Your task to perform on an android device: Open sound settings Image 0: 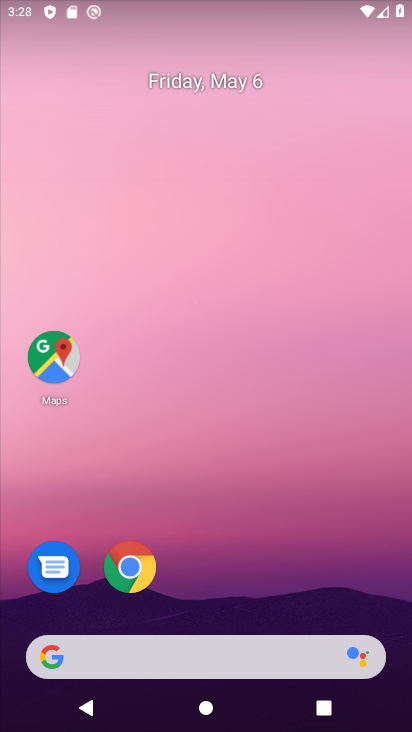
Step 0: drag from (194, 587) to (227, 171)
Your task to perform on an android device: Open sound settings Image 1: 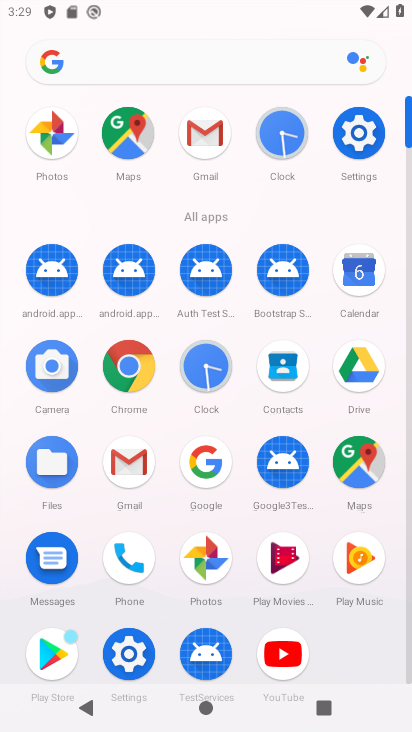
Step 1: click (361, 138)
Your task to perform on an android device: Open sound settings Image 2: 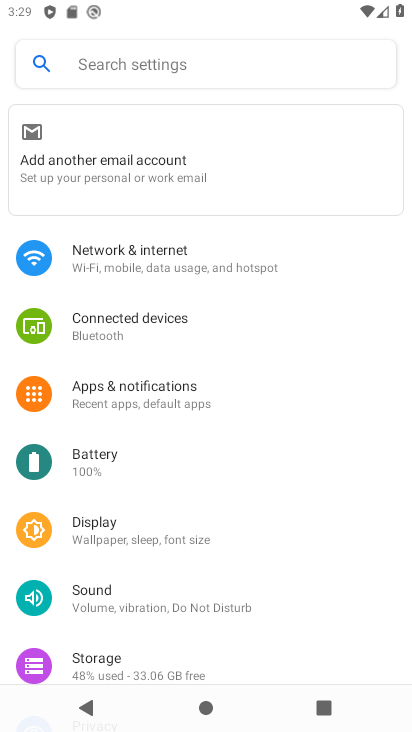
Step 2: click (105, 608)
Your task to perform on an android device: Open sound settings Image 3: 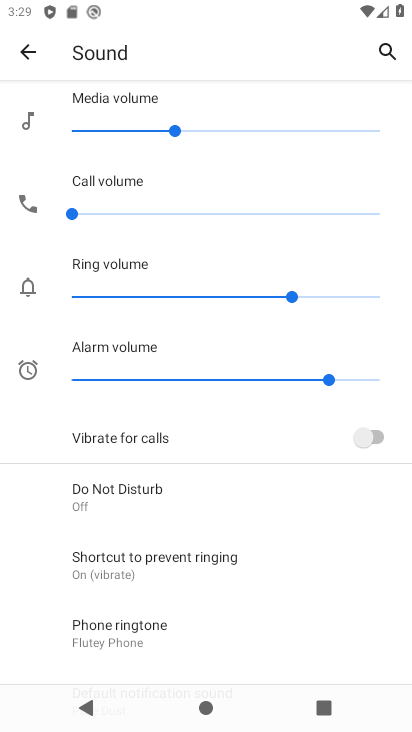
Step 3: task complete